Your task to perform on an android device: turn vacation reply on in the gmail app Image 0: 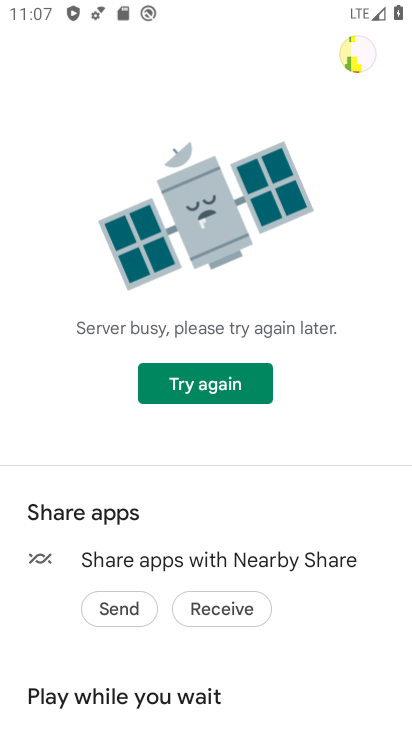
Step 0: task impossible